Your task to perform on an android device: toggle wifi Image 0: 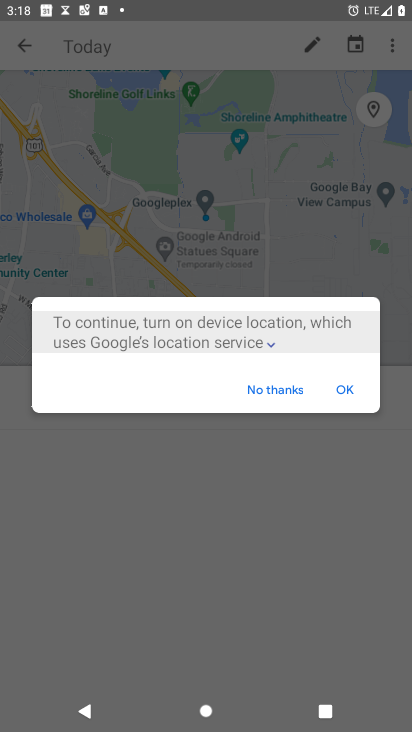
Step 0: press home button
Your task to perform on an android device: toggle wifi Image 1: 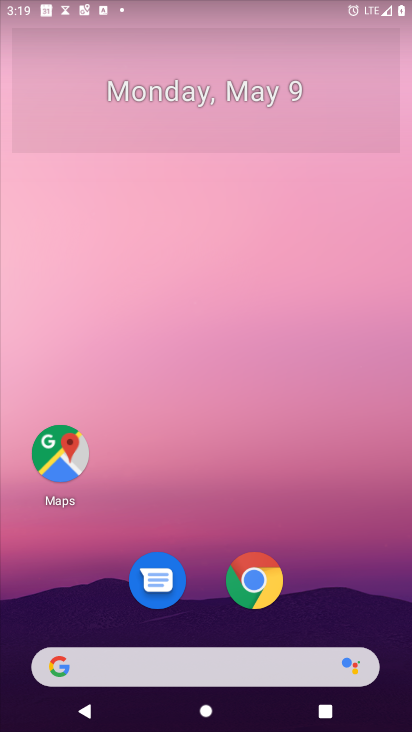
Step 1: drag from (342, 531) to (270, 54)
Your task to perform on an android device: toggle wifi Image 2: 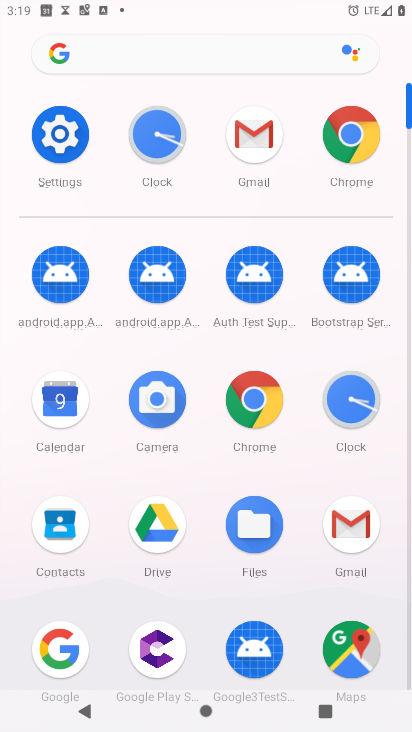
Step 2: click (54, 129)
Your task to perform on an android device: toggle wifi Image 3: 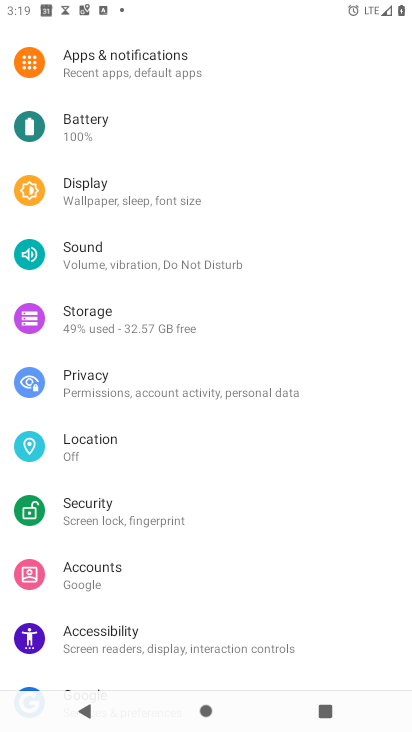
Step 3: drag from (213, 155) to (175, 635)
Your task to perform on an android device: toggle wifi Image 4: 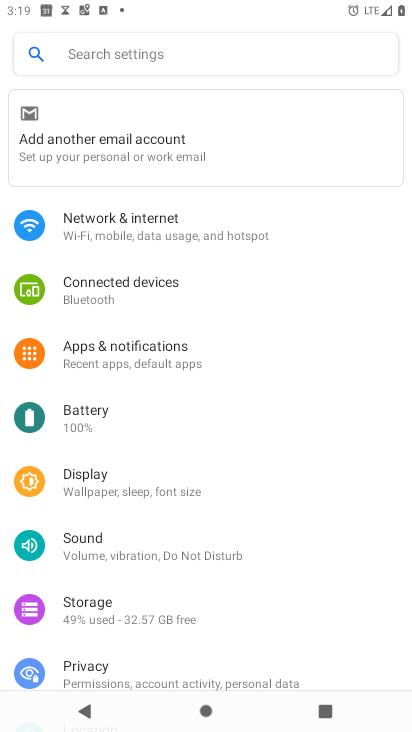
Step 4: drag from (227, 203) to (229, 581)
Your task to perform on an android device: toggle wifi Image 5: 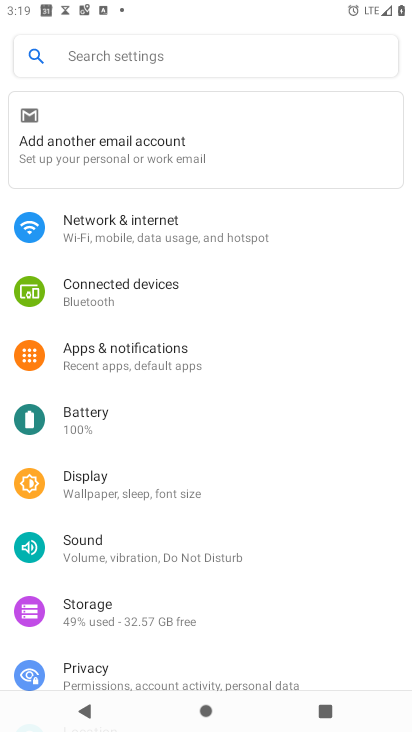
Step 5: click (138, 239)
Your task to perform on an android device: toggle wifi Image 6: 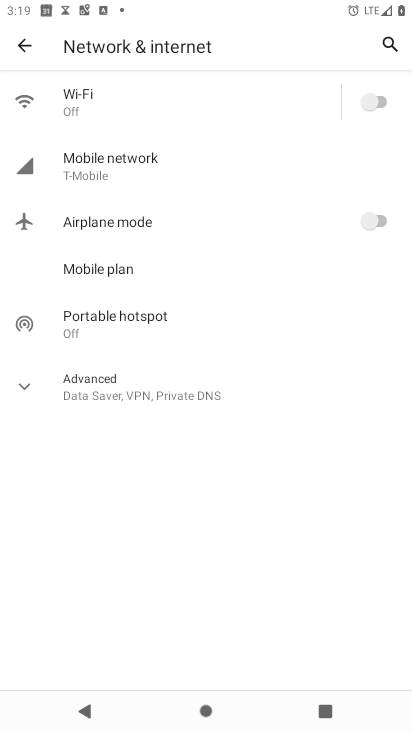
Step 6: click (111, 97)
Your task to perform on an android device: toggle wifi Image 7: 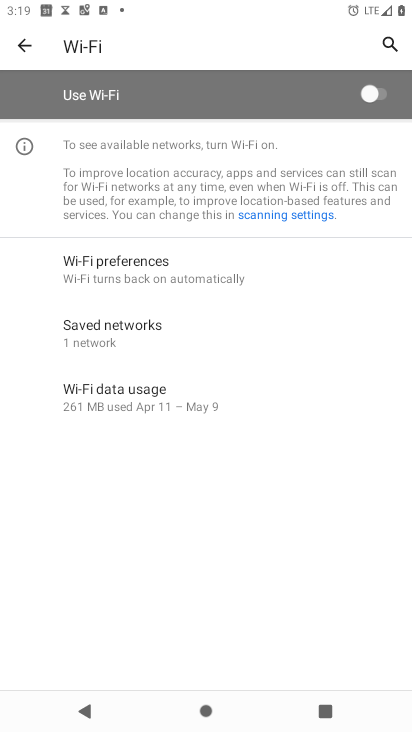
Step 7: click (376, 101)
Your task to perform on an android device: toggle wifi Image 8: 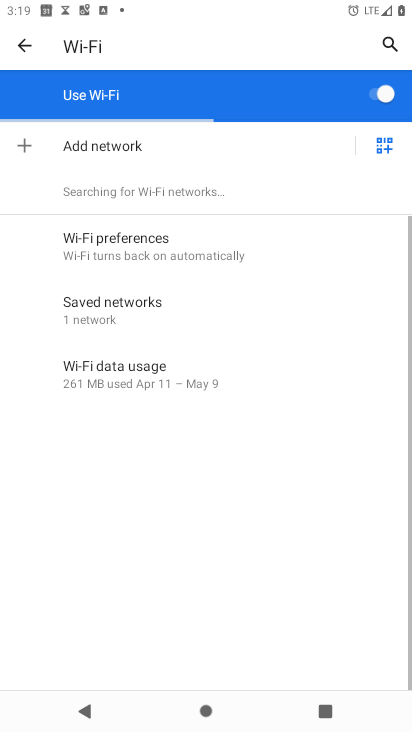
Step 8: task complete